Your task to perform on an android device: toggle show notifications on the lock screen Image 0: 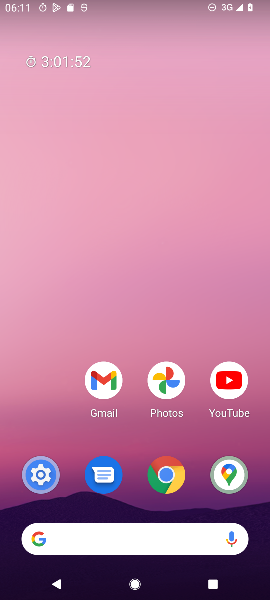
Step 0: drag from (62, 434) to (73, 165)
Your task to perform on an android device: toggle show notifications on the lock screen Image 1: 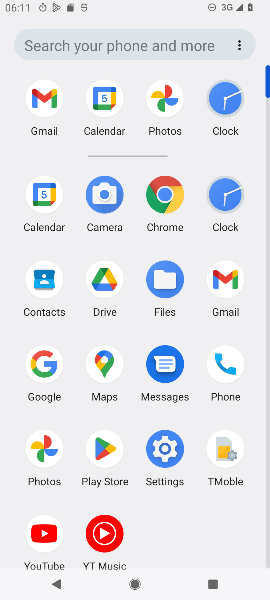
Step 1: click (157, 459)
Your task to perform on an android device: toggle show notifications on the lock screen Image 2: 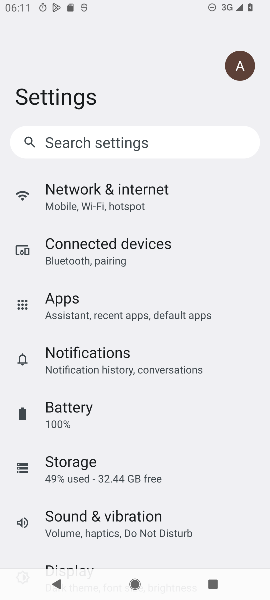
Step 2: drag from (222, 445) to (229, 360)
Your task to perform on an android device: toggle show notifications on the lock screen Image 3: 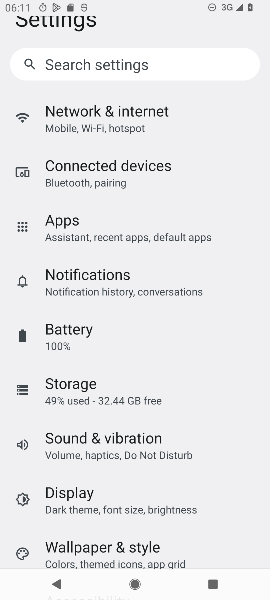
Step 3: drag from (213, 428) to (213, 335)
Your task to perform on an android device: toggle show notifications on the lock screen Image 4: 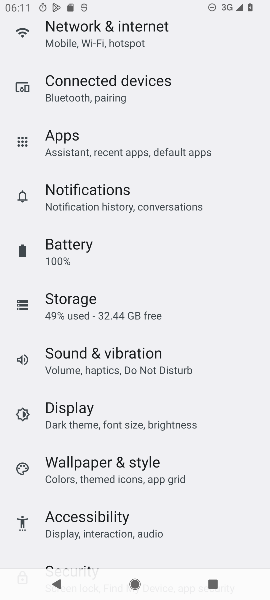
Step 4: drag from (212, 422) to (216, 330)
Your task to perform on an android device: toggle show notifications on the lock screen Image 5: 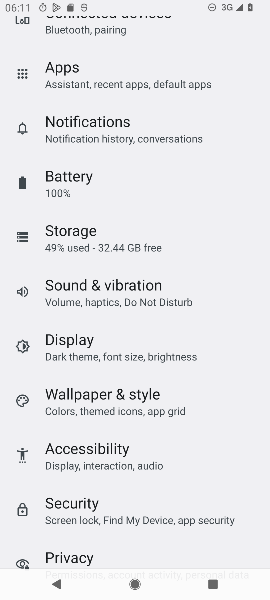
Step 5: drag from (216, 442) to (221, 348)
Your task to perform on an android device: toggle show notifications on the lock screen Image 6: 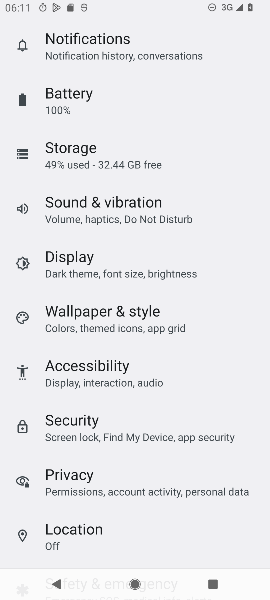
Step 6: drag from (215, 471) to (219, 341)
Your task to perform on an android device: toggle show notifications on the lock screen Image 7: 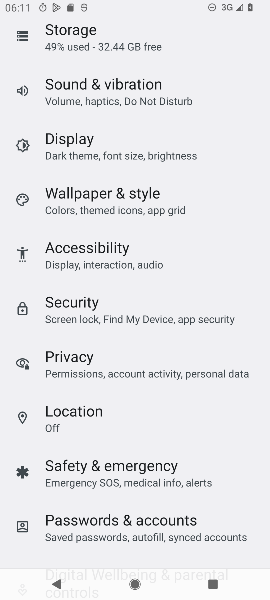
Step 7: drag from (213, 445) to (216, 355)
Your task to perform on an android device: toggle show notifications on the lock screen Image 8: 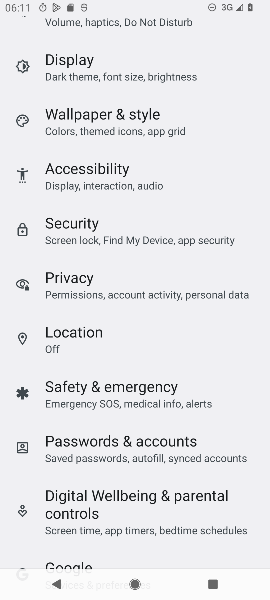
Step 8: drag from (226, 393) to (236, 285)
Your task to perform on an android device: toggle show notifications on the lock screen Image 9: 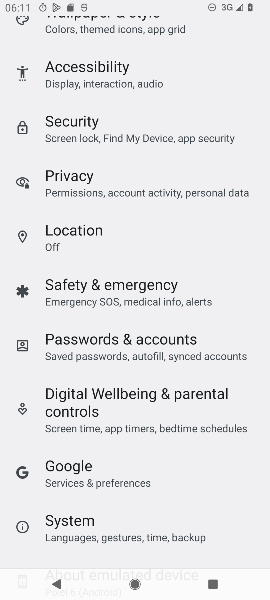
Step 9: drag from (217, 459) to (219, 297)
Your task to perform on an android device: toggle show notifications on the lock screen Image 10: 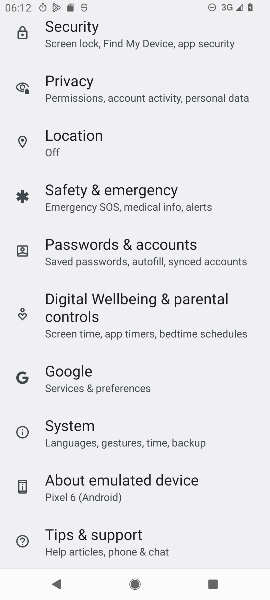
Step 10: drag from (223, 438) to (229, 314)
Your task to perform on an android device: toggle show notifications on the lock screen Image 11: 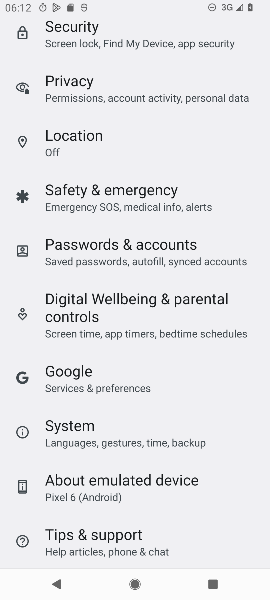
Step 11: drag from (262, 203) to (250, 303)
Your task to perform on an android device: toggle show notifications on the lock screen Image 12: 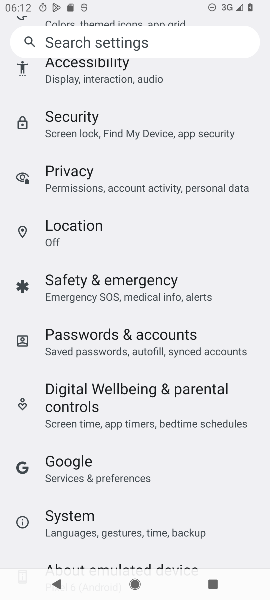
Step 12: drag from (231, 232) to (240, 329)
Your task to perform on an android device: toggle show notifications on the lock screen Image 13: 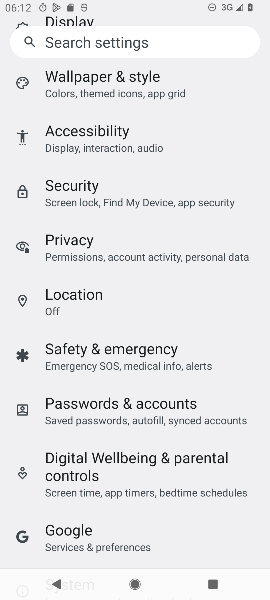
Step 13: drag from (253, 169) to (247, 272)
Your task to perform on an android device: toggle show notifications on the lock screen Image 14: 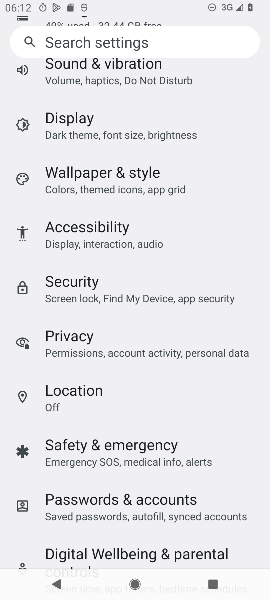
Step 14: drag from (229, 175) to (219, 244)
Your task to perform on an android device: toggle show notifications on the lock screen Image 15: 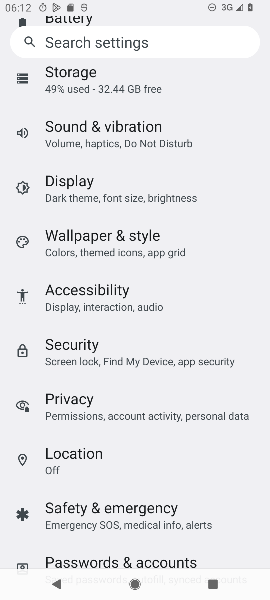
Step 15: drag from (221, 133) to (222, 277)
Your task to perform on an android device: toggle show notifications on the lock screen Image 16: 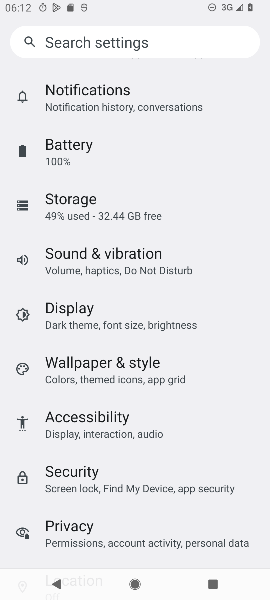
Step 16: drag from (226, 124) to (221, 281)
Your task to perform on an android device: toggle show notifications on the lock screen Image 17: 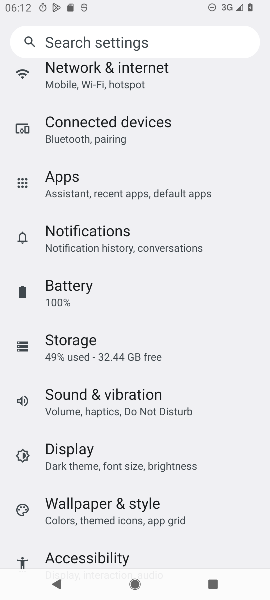
Step 17: drag from (234, 138) to (218, 347)
Your task to perform on an android device: toggle show notifications on the lock screen Image 18: 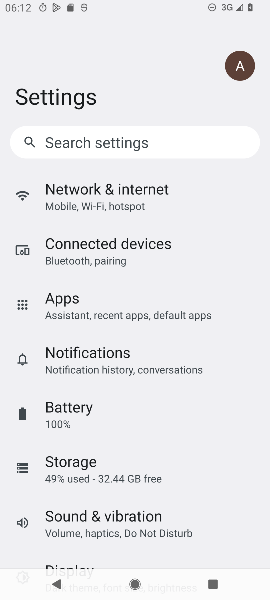
Step 18: click (118, 364)
Your task to perform on an android device: toggle show notifications on the lock screen Image 19: 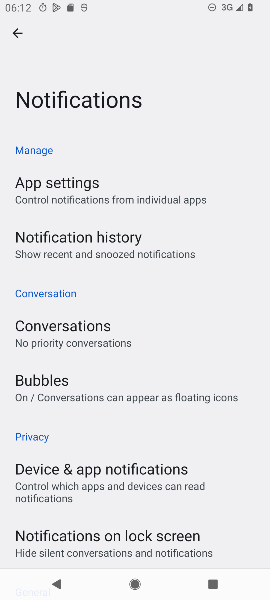
Step 19: drag from (236, 420) to (233, 356)
Your task to perform on an android device: toggle show notifications on the lock screen Image 20: 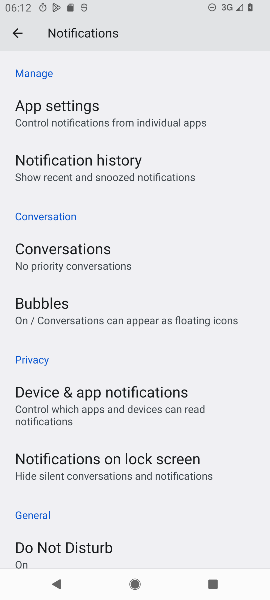
Step 20: drag from (210, 461) to (219, 291)
Your task to perform on an android device: toggle show notifications on the lock screen Image 21: 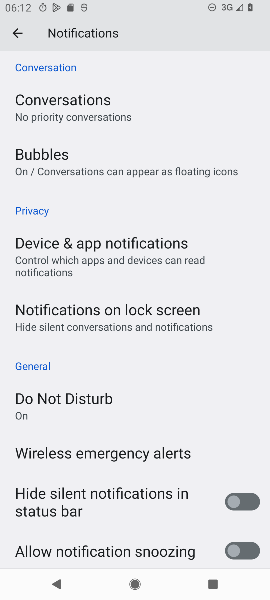
Step 21: click (169, 311)
Your task to perform on an android device: toggle show notifications on the lock screen Image 22: 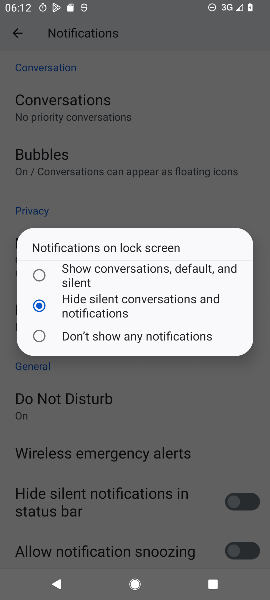
Step 22: click (85, 274)
Your task to perform on an android device: toggle show notifications on the lock screen Image 23: 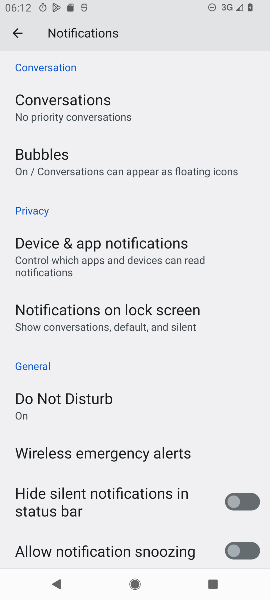
Step 23: task complete